Your task to perform on an android device: What's the weather today? Image 0: 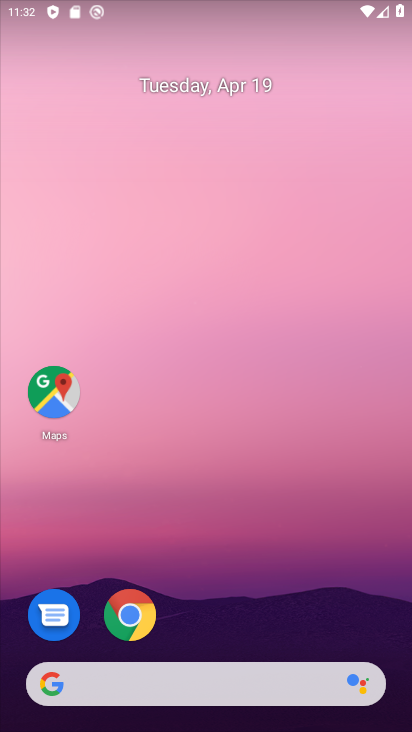
Step 0: drag from (230, 580) to (257, 190)
Your task to perform on an android device: What's the weather today? Image 1: 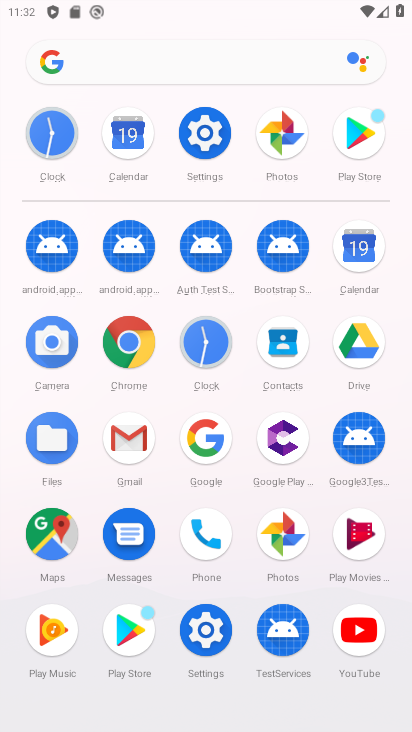
Step 1: click (210, 444)
Your task to perform on an android device: What's the weather today? Image 2: 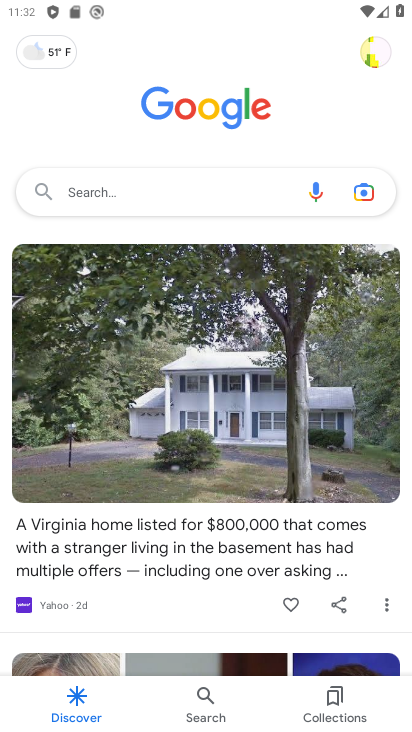
Step 2: click (130, 201)
Your task to perform on an android device: What's the weather today? Image 3: 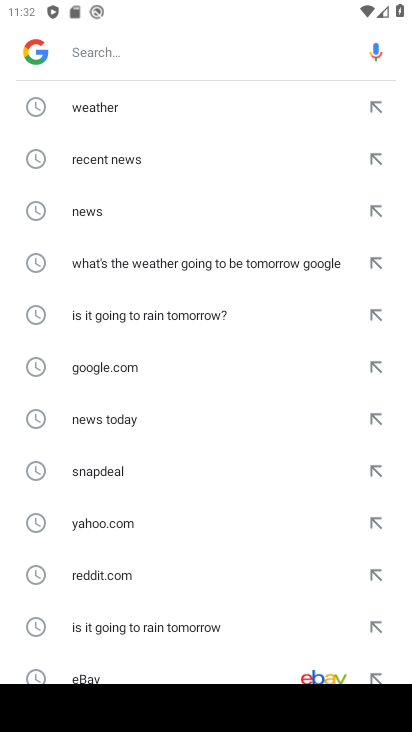
Step 3: click (101, 98)
Your task to perform on an android device: What's the weather today? Image 4: 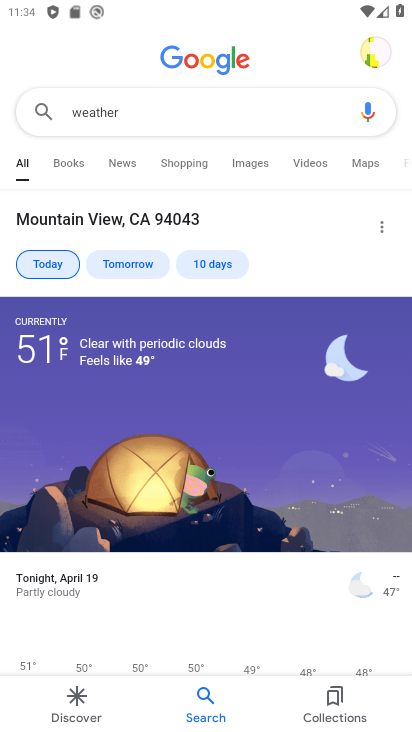
Step 4: task complete